Your task to perform on an android device: change the clock display to digital Image 0: 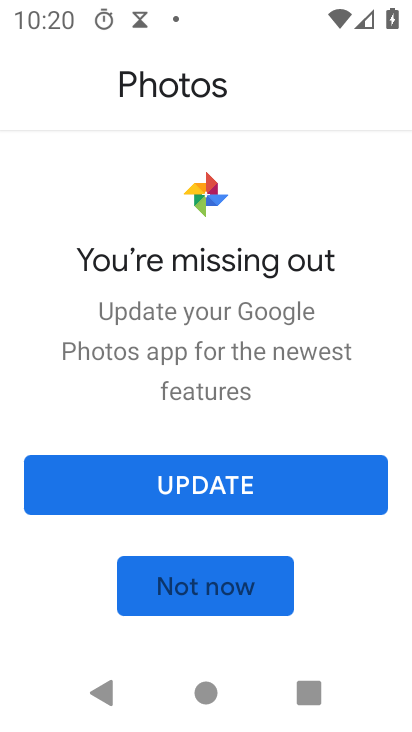
Step 0: press home button
Your task to perform on an android device: change the clock display to digital Image 1: 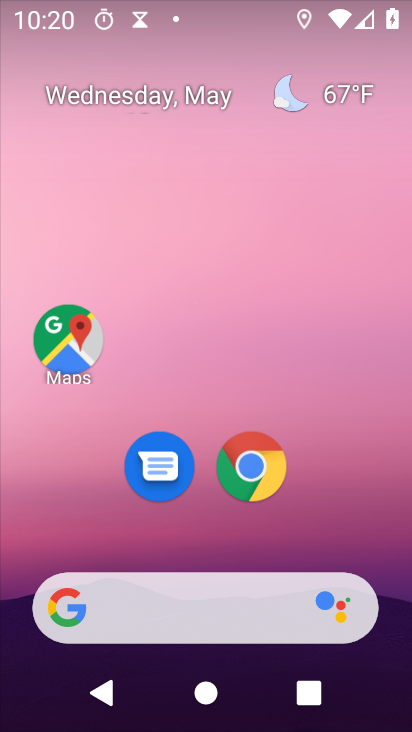
Step 1: drag from (282, 530) to (240, 321)
Your task to perform on an android device: change the clock display to digital Image 2: 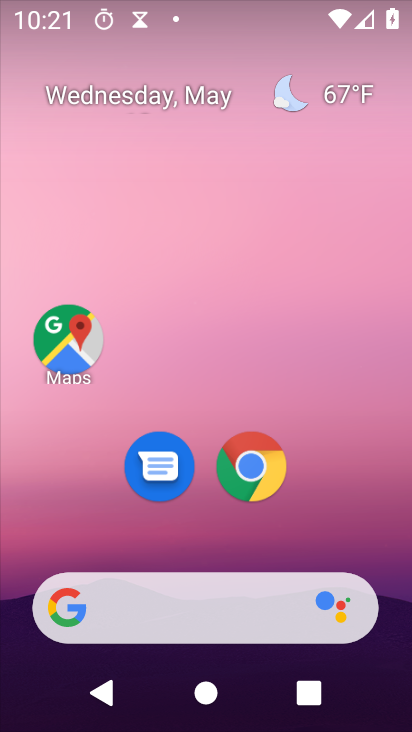
Step 2: drag from (183, 527) to (186, 144)
Your task to perform on an android device: change the clock display to digital Image 3: 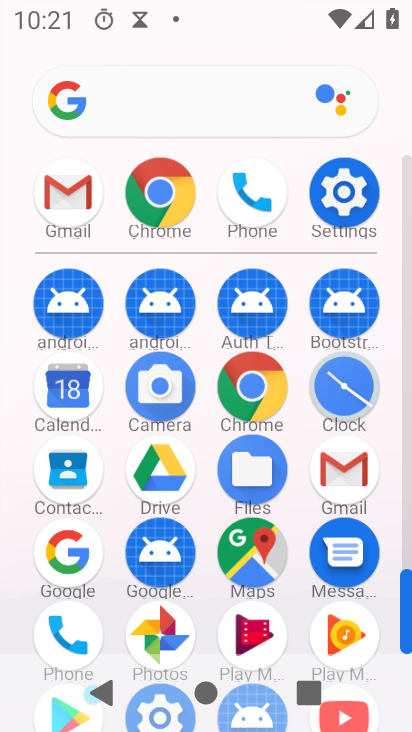
Step 3: click (370, 395)
Your task to perform on an android device: change the clock display to digital Image 4: 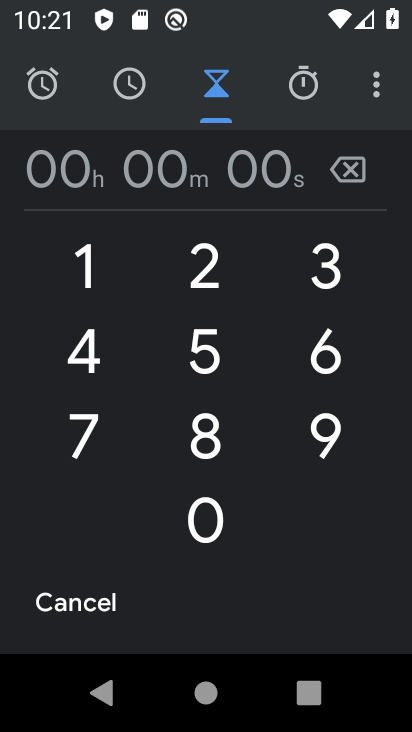
Step 4: click (379, 78)
Your task to perform on an android device: change the clock display to digital Image 5: 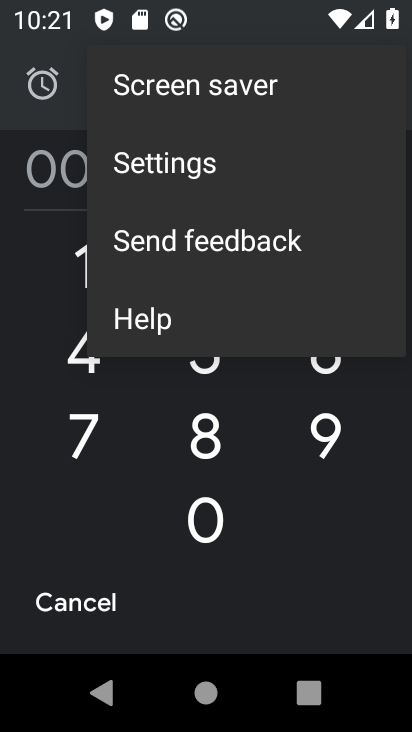
Step 5: click (181, 187)
Your task to perform on an android device: change the clock display to digital Image 6: 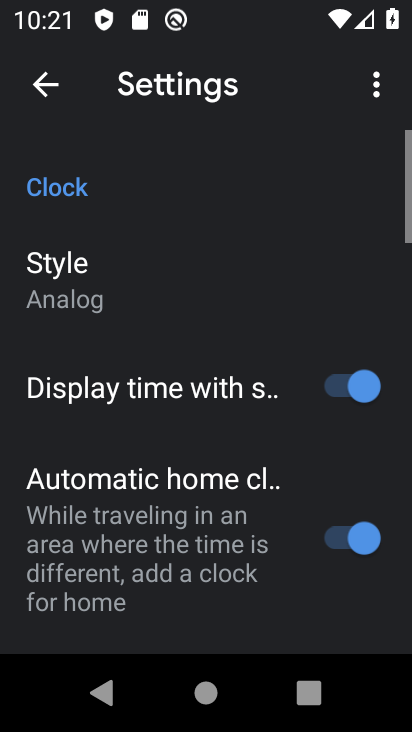
Step 6: click (71, 282)
Your task to perform on an android device: change the clock display to digital Image 7: 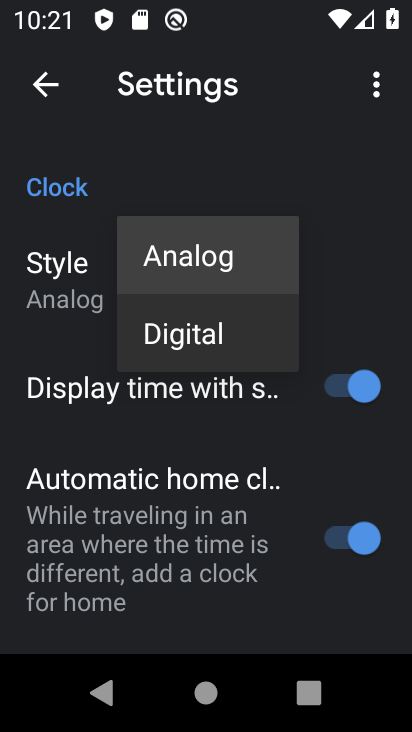
Step 7: click (164, 337)
Your task to perform on an android device: change the clock display to digital Image 8: 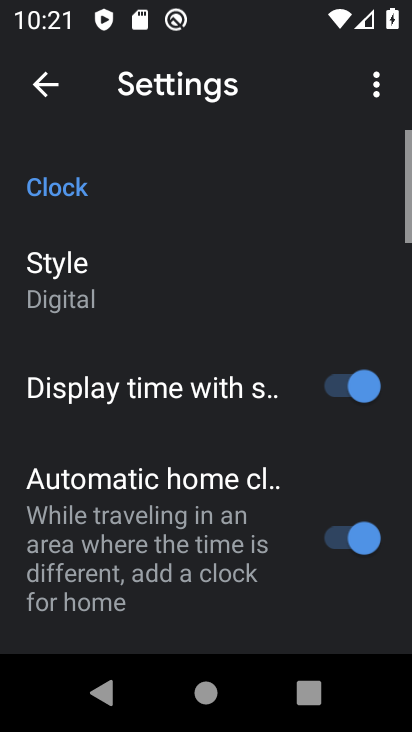
Step 8: task complete